Your task to perform on an android device: What's on my calendar tomorrow? Image 0: 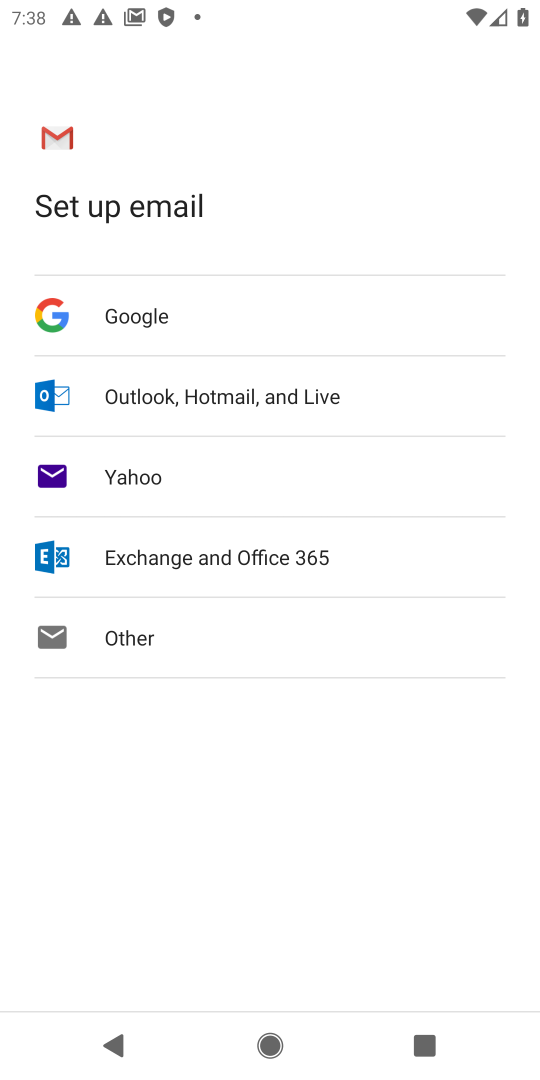
Step 0: click (266, 1050)
Your task to perform on an android device: What's on my calendar tomorrow? Image 1: 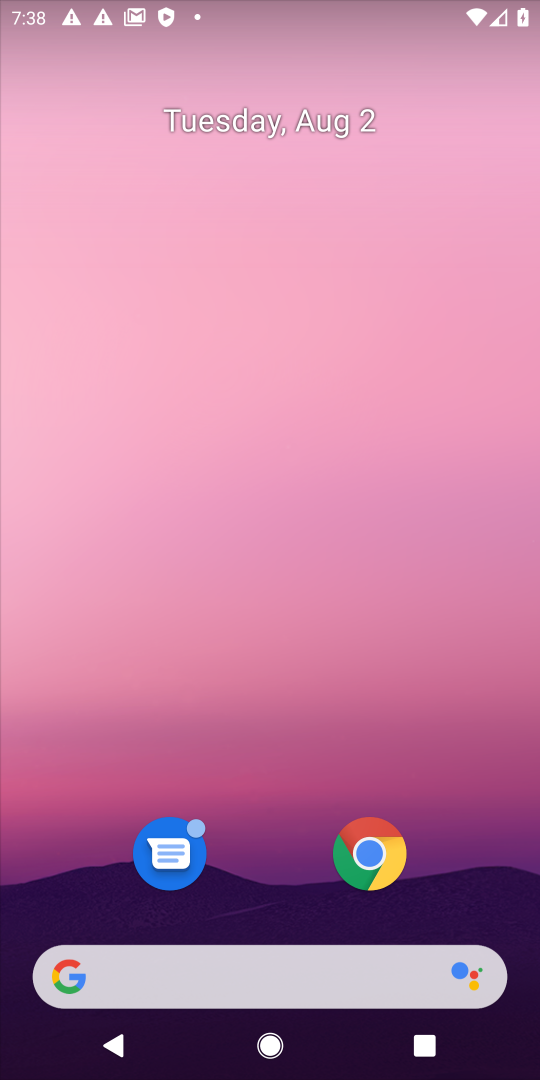
Step 1: drag from (354, 706) to (369, 124)
Your task to perform on an android device: What's on my calendar tomorrow? Image 2: 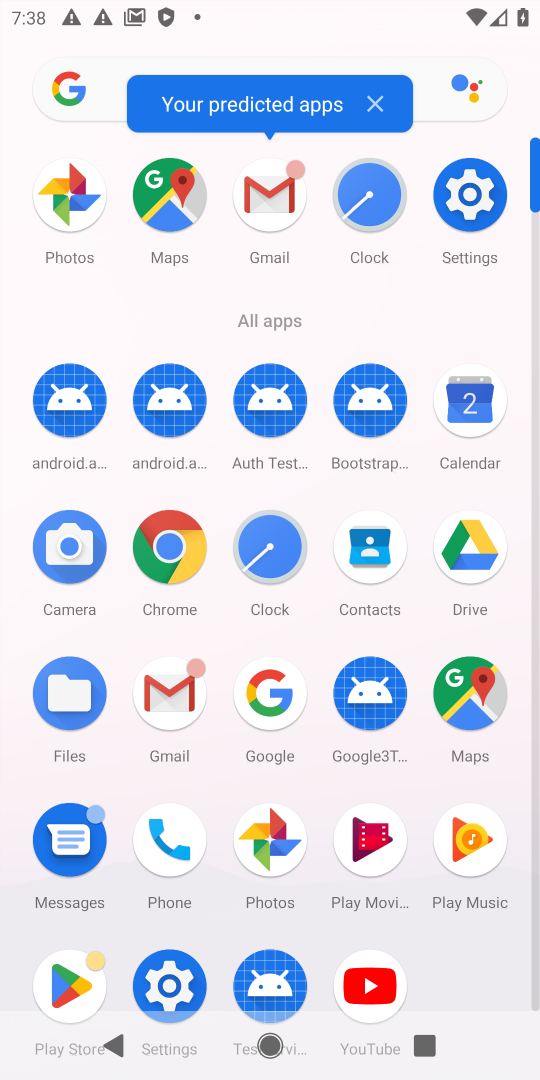
Step 2: click (470, 412)
Your task to perform on an android device: What's on my calendar tomorrow? Image 3: 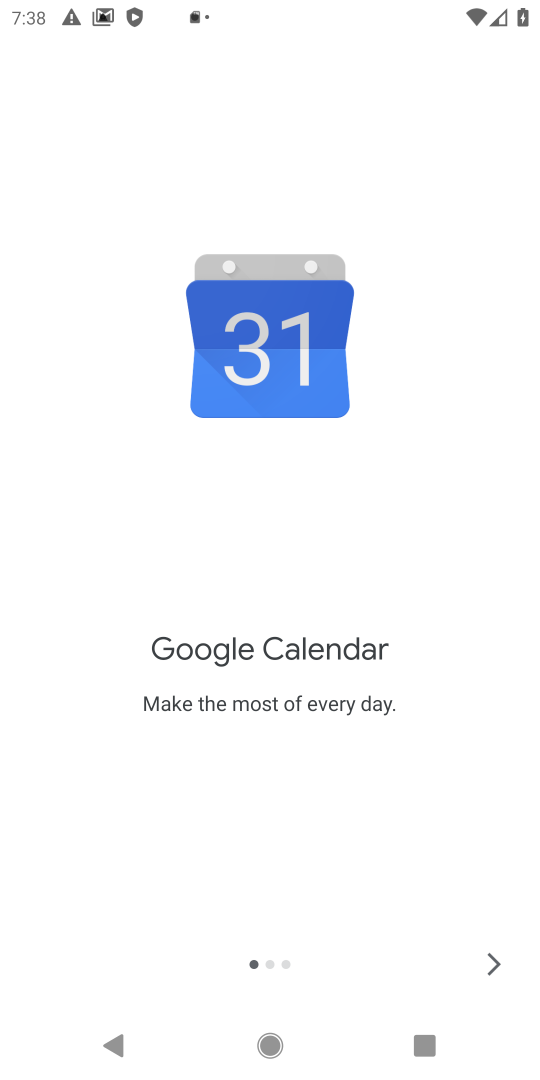
Step 3: click (483, 960)
Your task to perform on an android device: What's on my calendar tomorrow? Image 4: 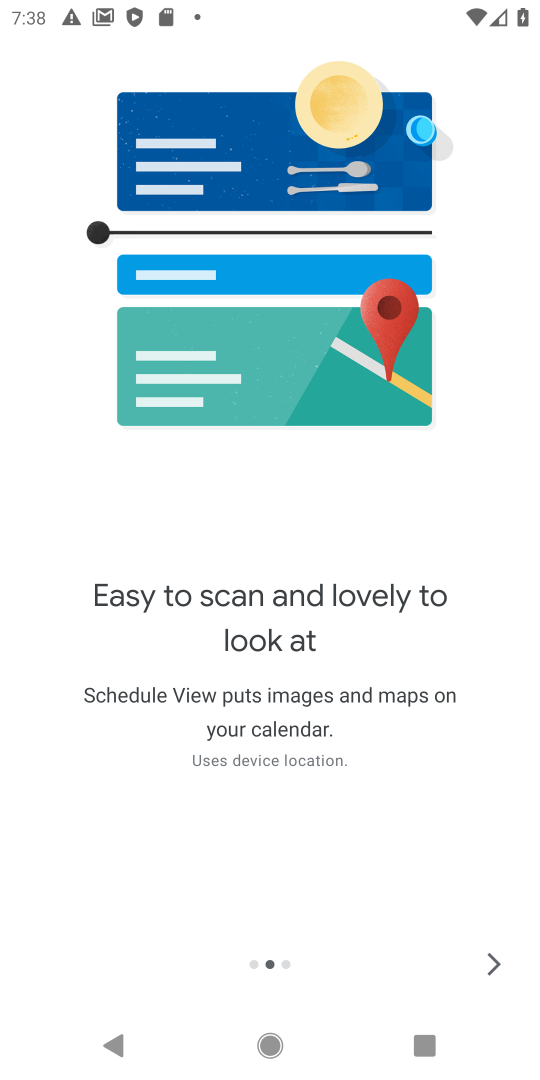
Step 4: click (491, 964)
Your task to perform on an android device: What's on my calendar tomorrow? Image 5: 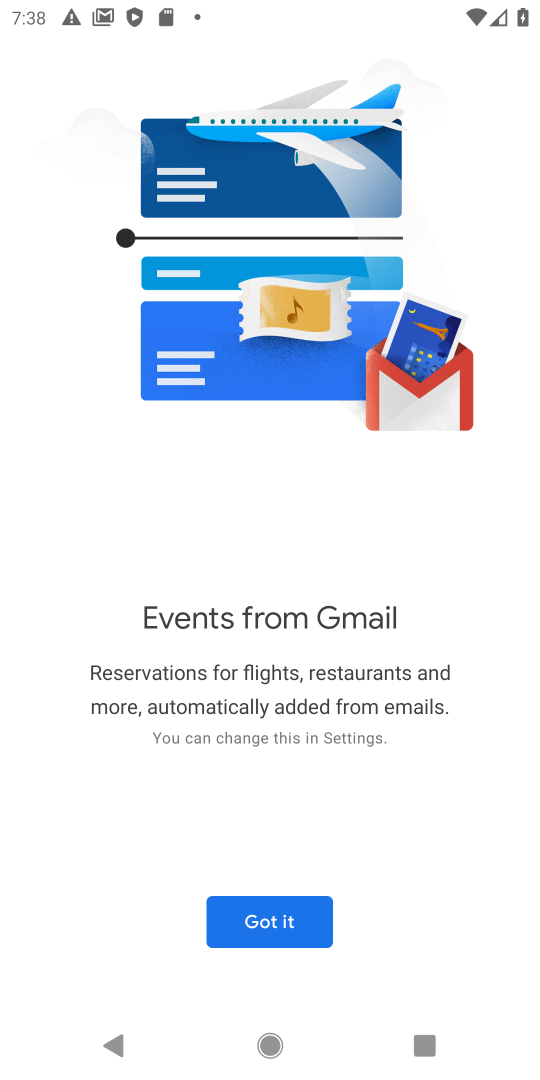
Step 5: click (267, 916)
Your task to perform on an android device: What's on my calendar tomorrow? Image 6: 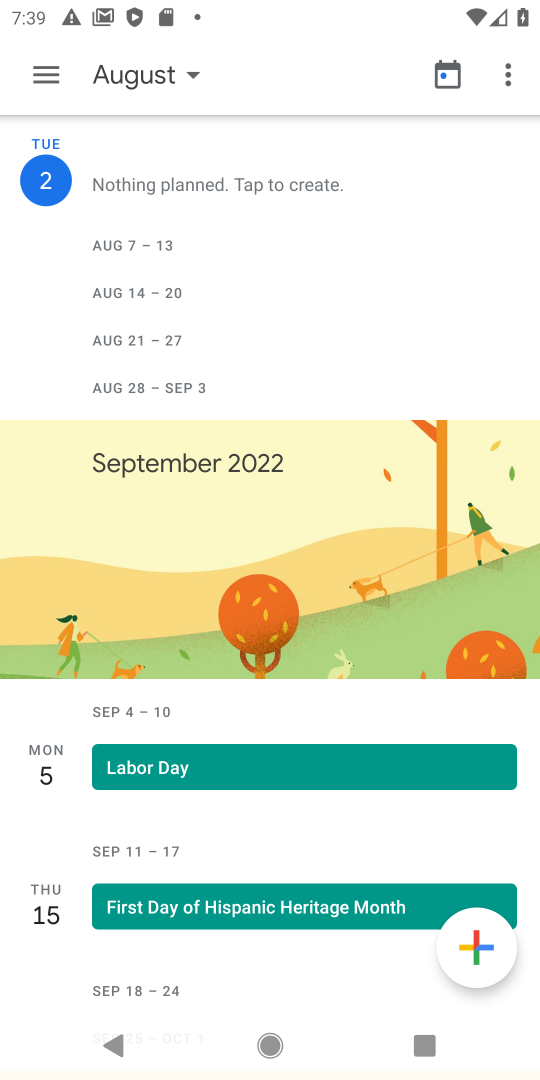
Step 6: click (158, 70)
Your task to perform on an android device: What's on my calendar tomorrow? Image 7: 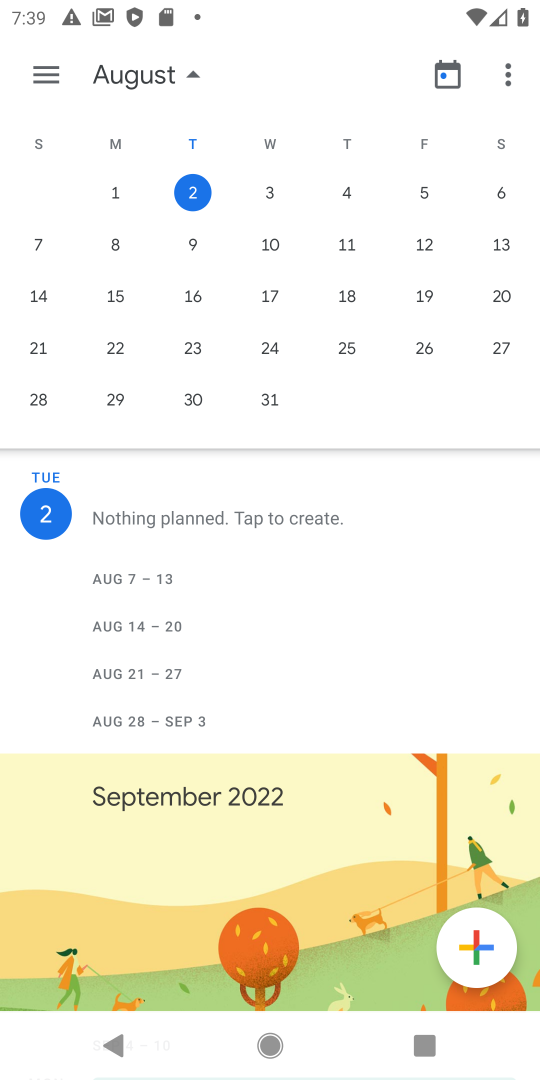
Step 7: click (187, 197)
Your task to perform on an android device: What's on my calendar tomorrow? Image 8: 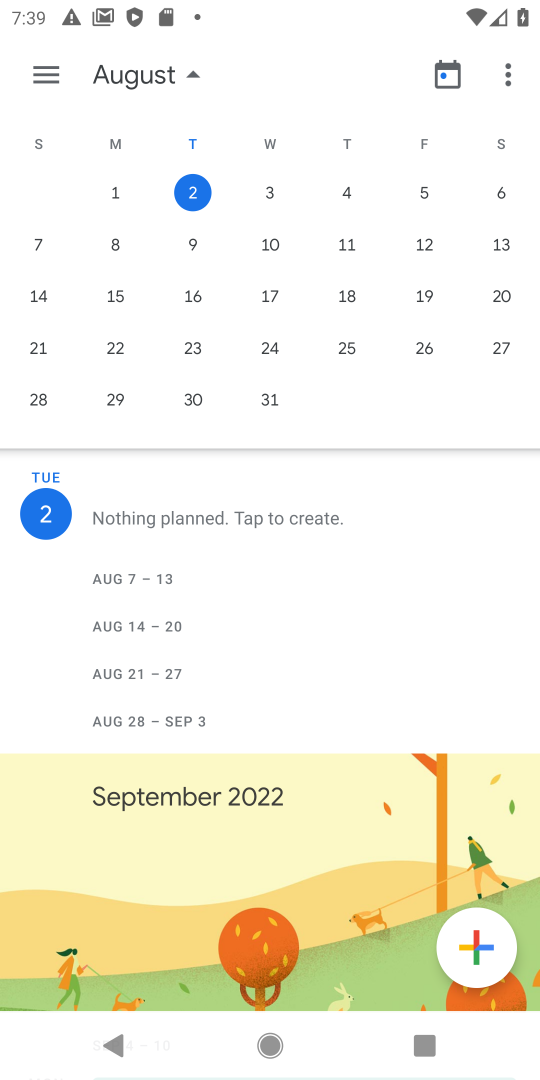
Step 8: task complete